Your task to perform on an android device: set the stopwatch Image 0: 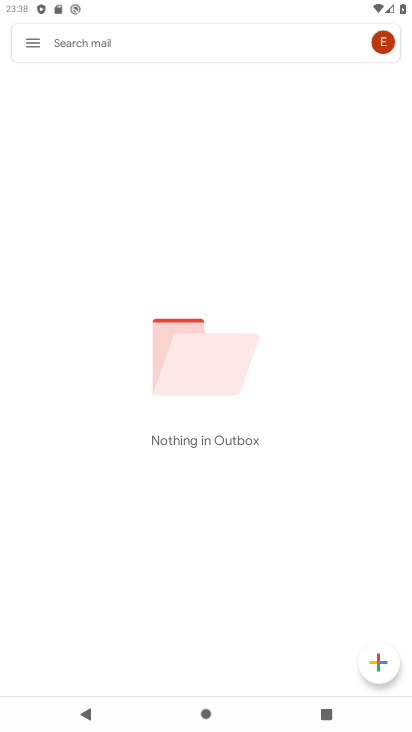
Step 0: press home button
Your task to perform on an android device: set the stopwatch Image 1: 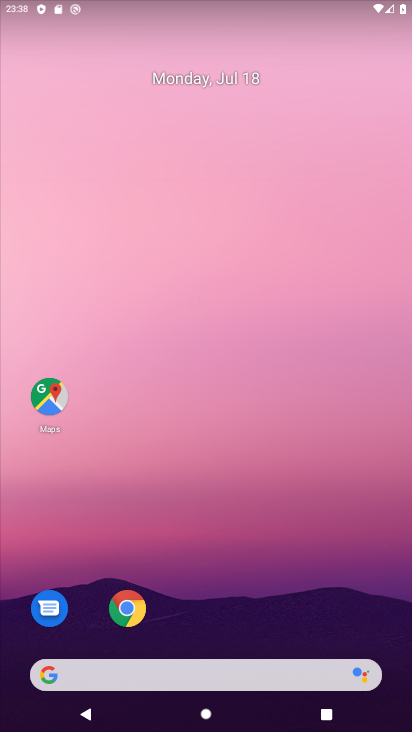
Step 1: drag from (200, 676) to (214, 151)
Your task to perform on an android device: set the stopwatch Image 2: 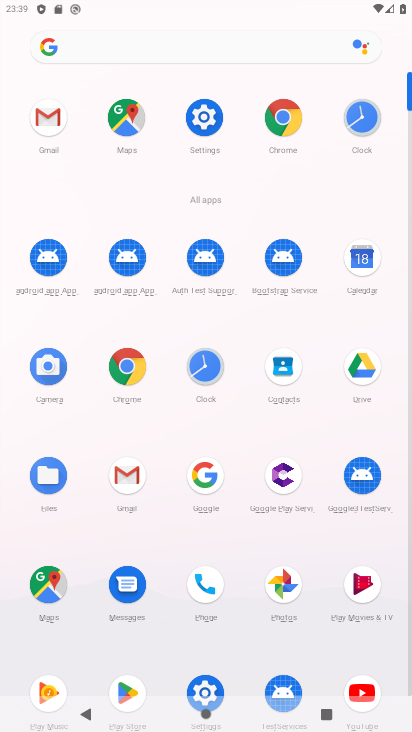
Step 2: click (206, 365)
Your task to perform on an android device: set the stopwatch Image 3: 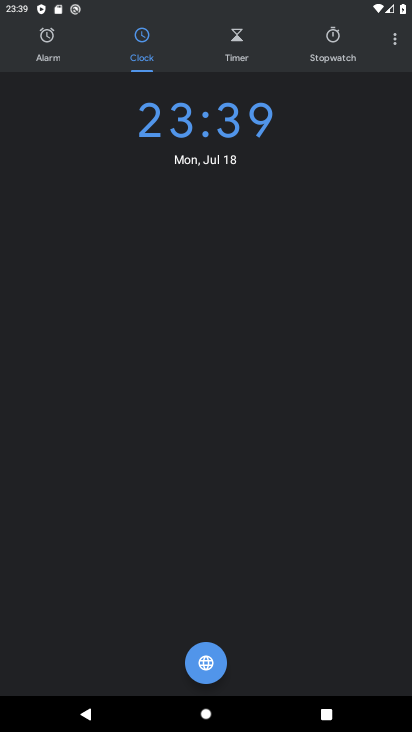
Step 3: click (333, 39)
Your task to perform on an android device: set the stopwatch Image 4: 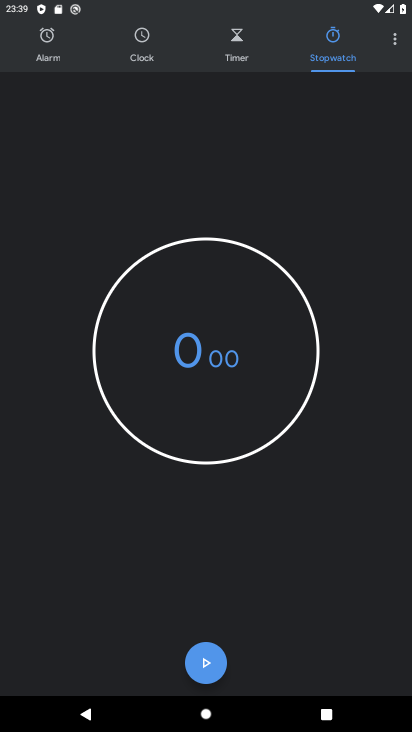
Step 4: click (204, 666)
Your task to perform on an android device: set the stopwatch Image 5: 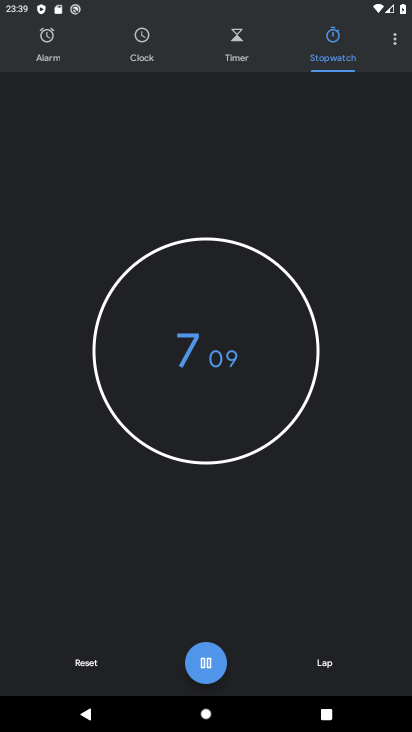
Step 5: click (202, 666)
Your task to perform on an android device: set the stopwatch Image 6: 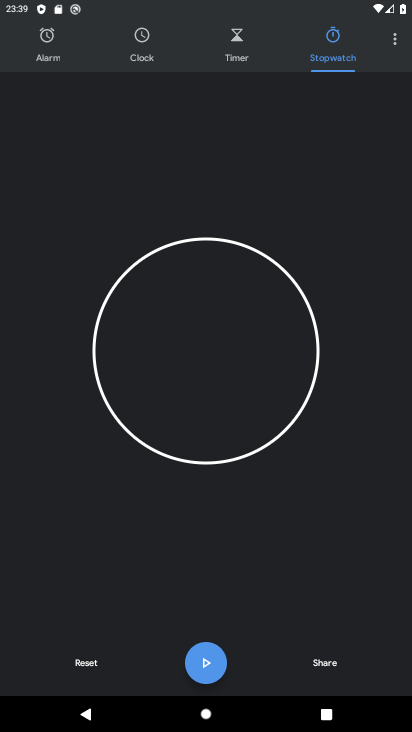
Step 6: task complete